Your task to perform on an android device: See recent photos Image 0: 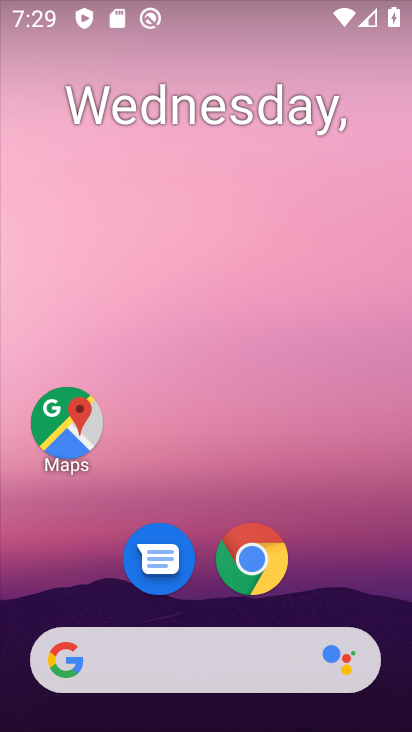
Step 0: drag from (229, 595) to (183, 71)
Your task to perform on an android device: See recent photos Image 1: 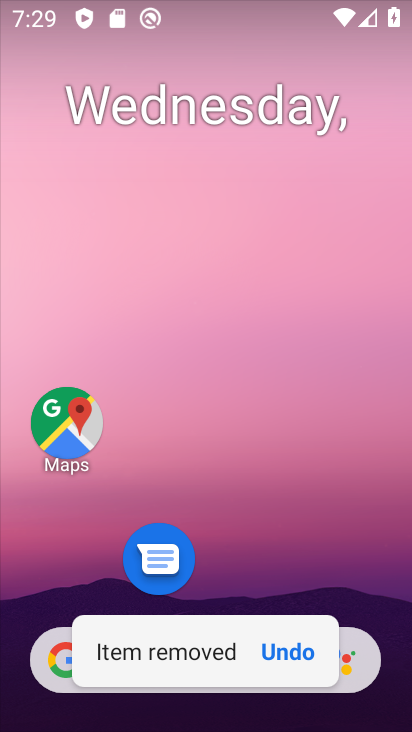
Step 1: drag from (202, 586) to (235, 49)
Your task to perform on an android device: See recent photos Image 2: 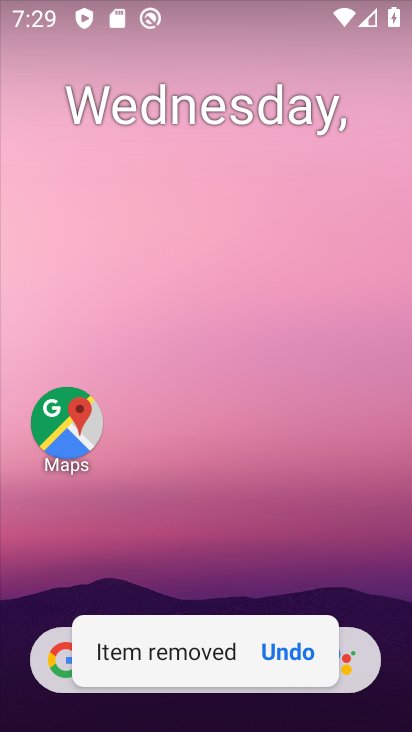
Step 2: click (245, 417)
Your task to perform on an android device: See recent photos Image 3: 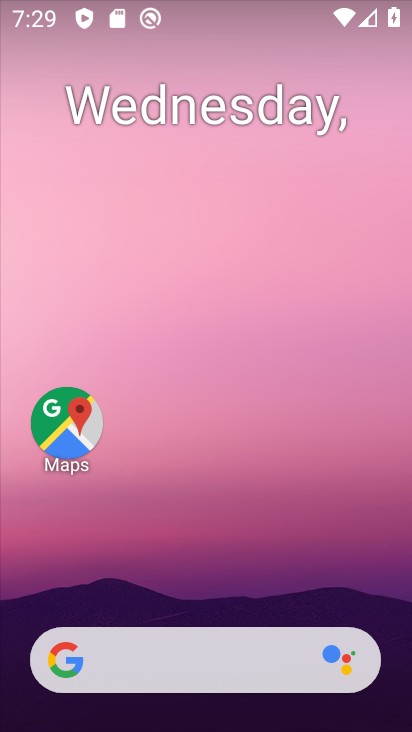
Step 3: drag from (253, 547) to (223, 84)
Your task to perform on an android device: See recent photos Image 4: 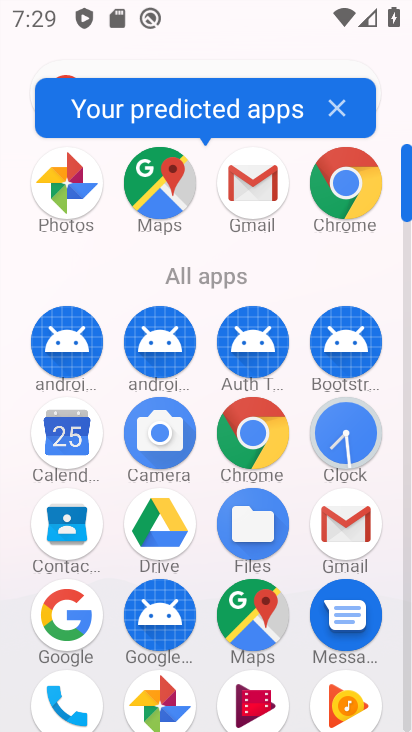
Step 4: click (155, 691)
Your task to perform on an android device: See recent photos Image 5: 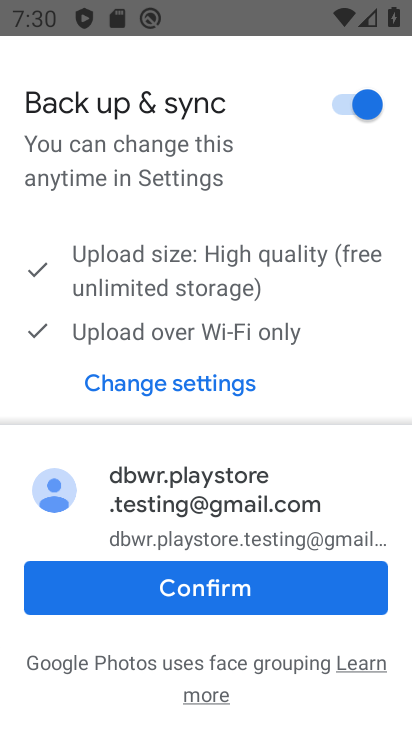
Step 5: click (234, 597)
Your task to perform on an android device: See recent photos Image 6: 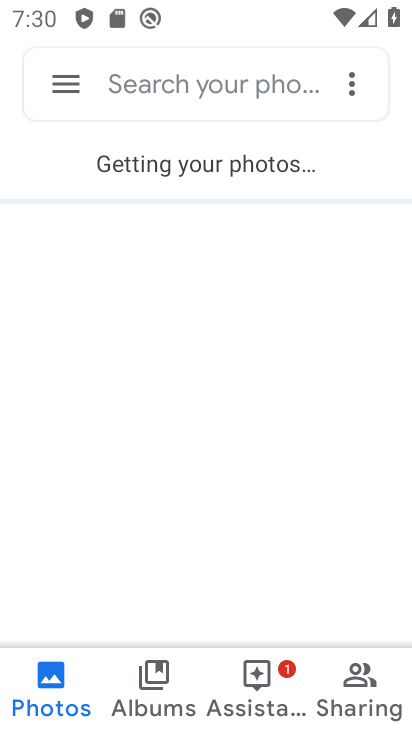
Step 6: task complete